Your task to perform on an android device: turn on sleep mode Image 0: 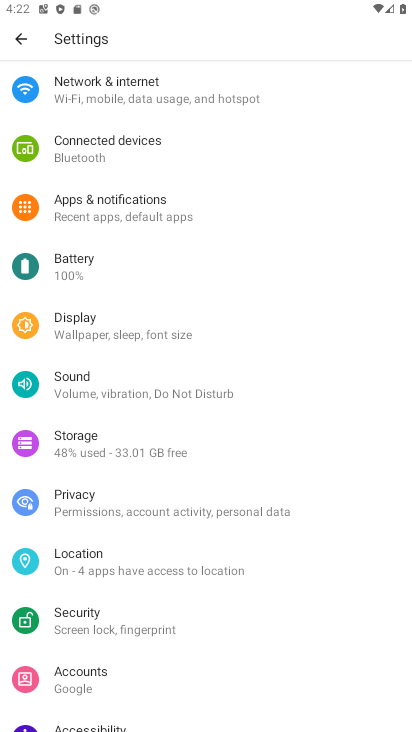
Step 0: task complete